Your task to perform on an android device: Open internet settings Image 0: 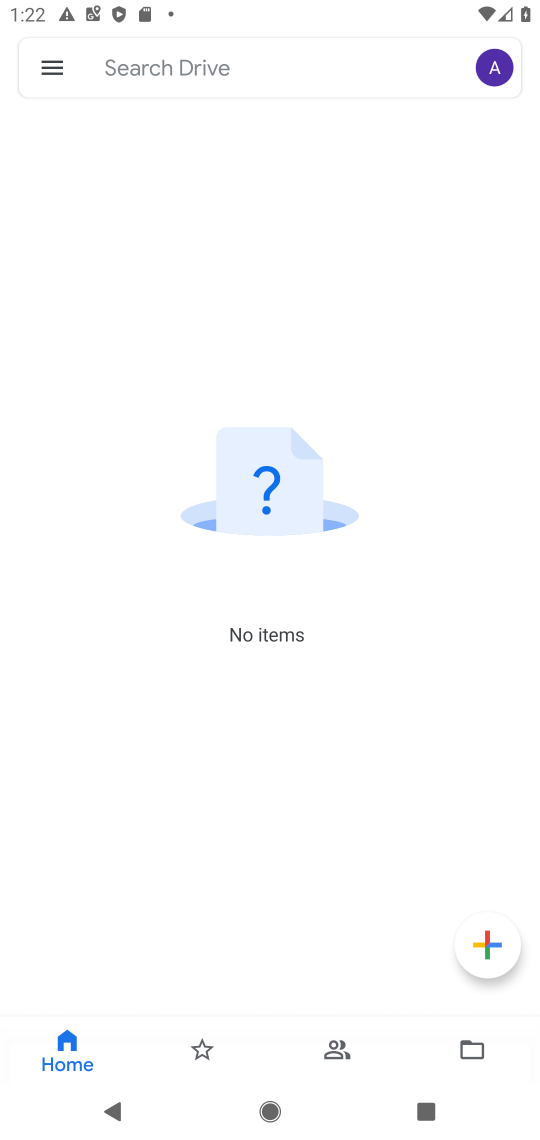
Step 0: press home button
Your task to perform on an android device: Open internet settings Image 1: 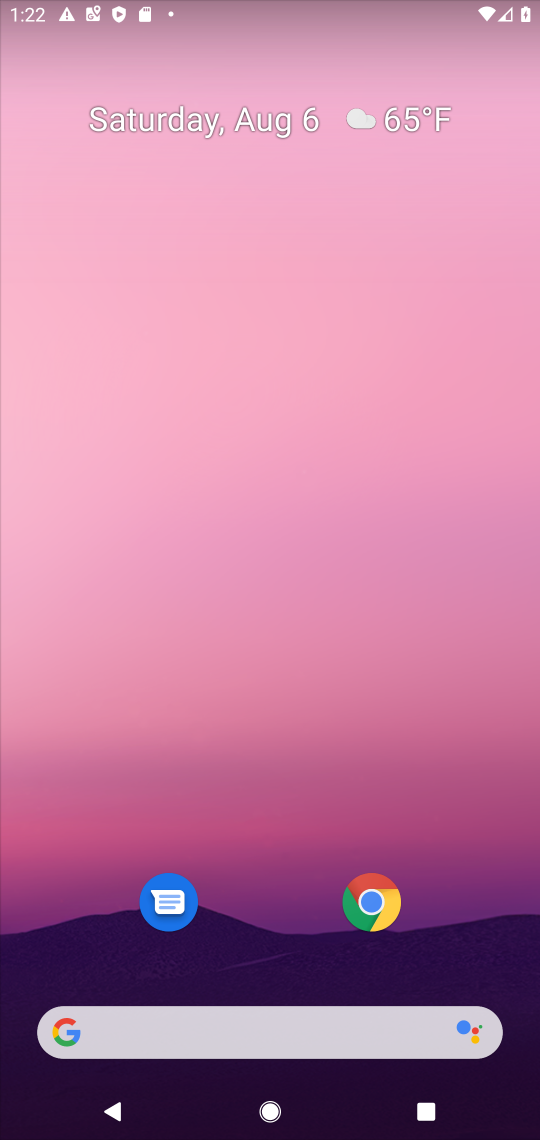
Step 1: drag from (271, 882) to (170, 370)
Your task to perform on an android device: Open internet settings Image 2: 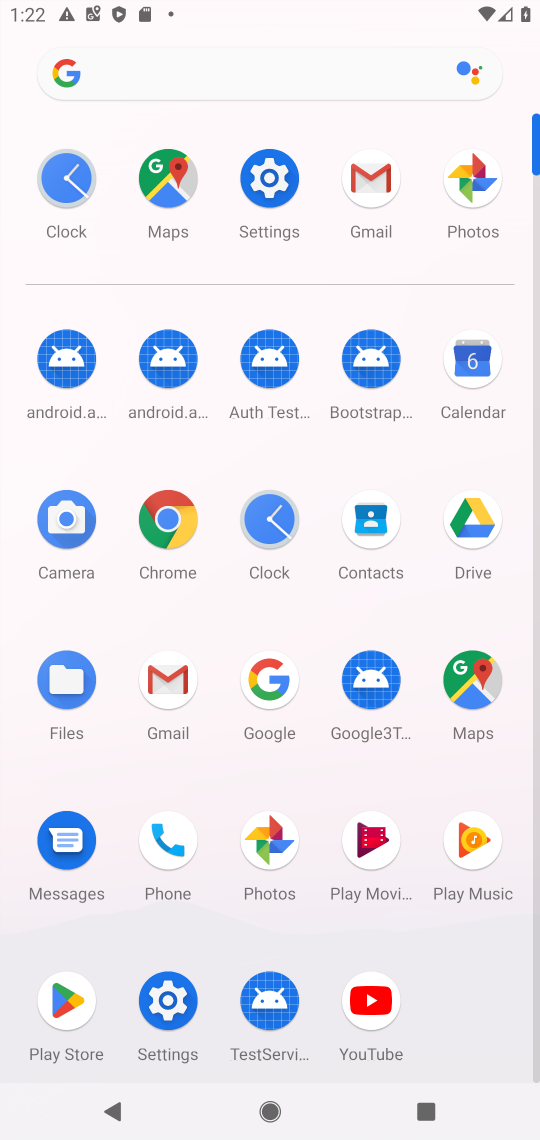
Step 2: click (274, 174)
Your task to perform on an android device: Open internet settings Image 3: 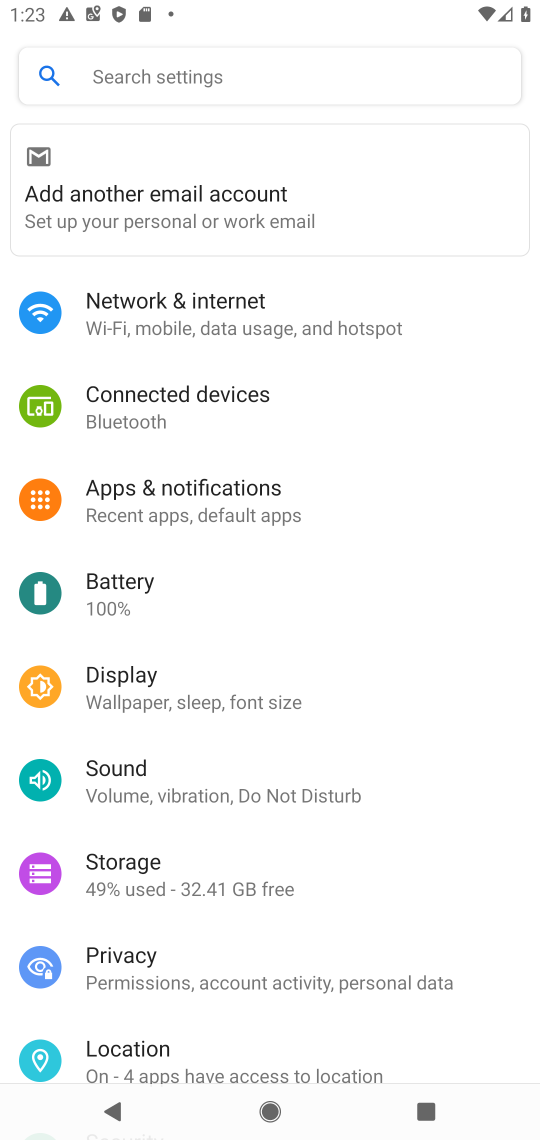
Step 3: click (196, 295)
Your task to perform on an android device: Open internet settings Image 4: 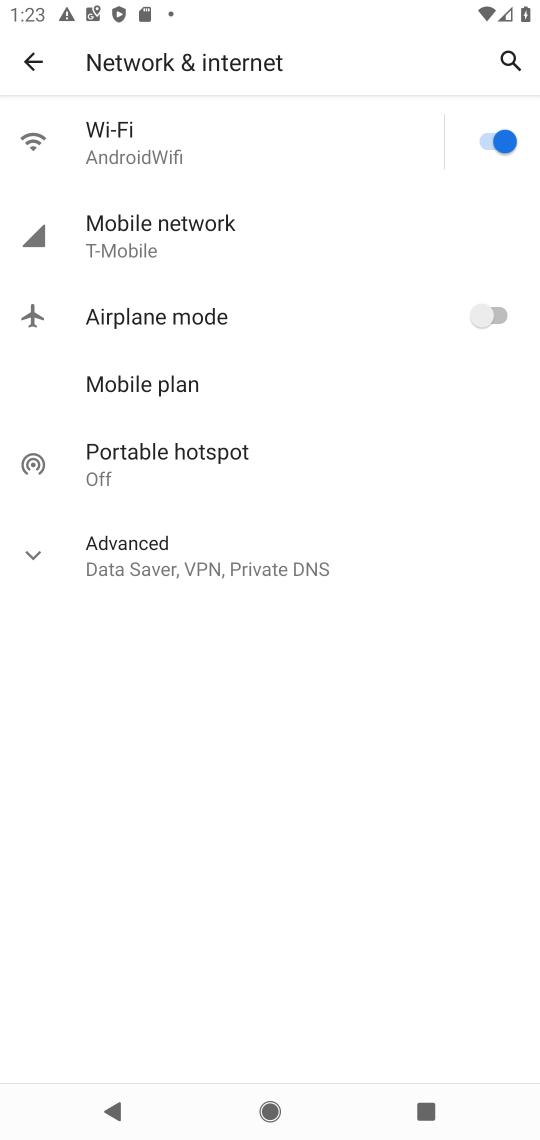
Step 4: task complete